Your task to perform on an android device: open app "Mercado Libre" (install if not already installed) Image 0: 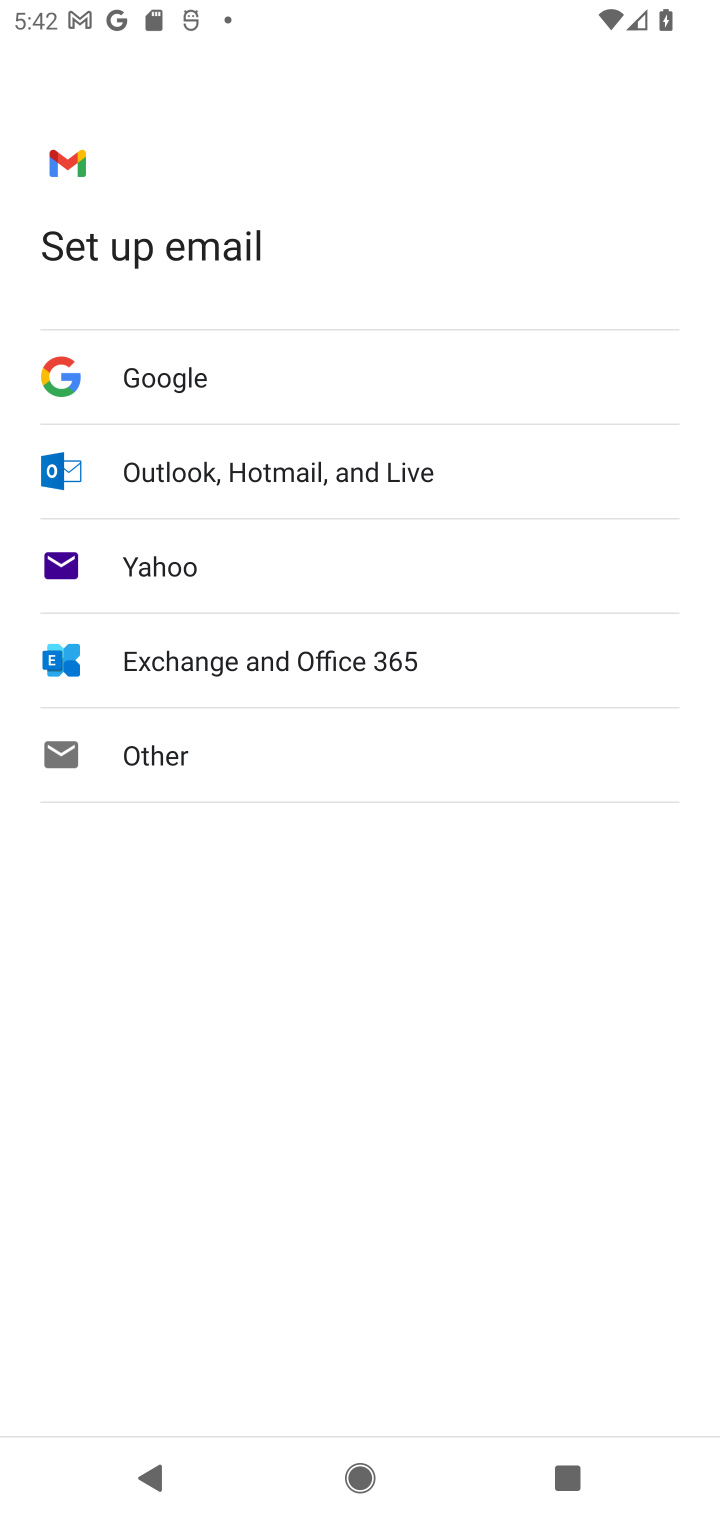
Step 0: press home button
Your task to perform on an android device: open app "Mercado Libre" (install if not already installed) Image 1: 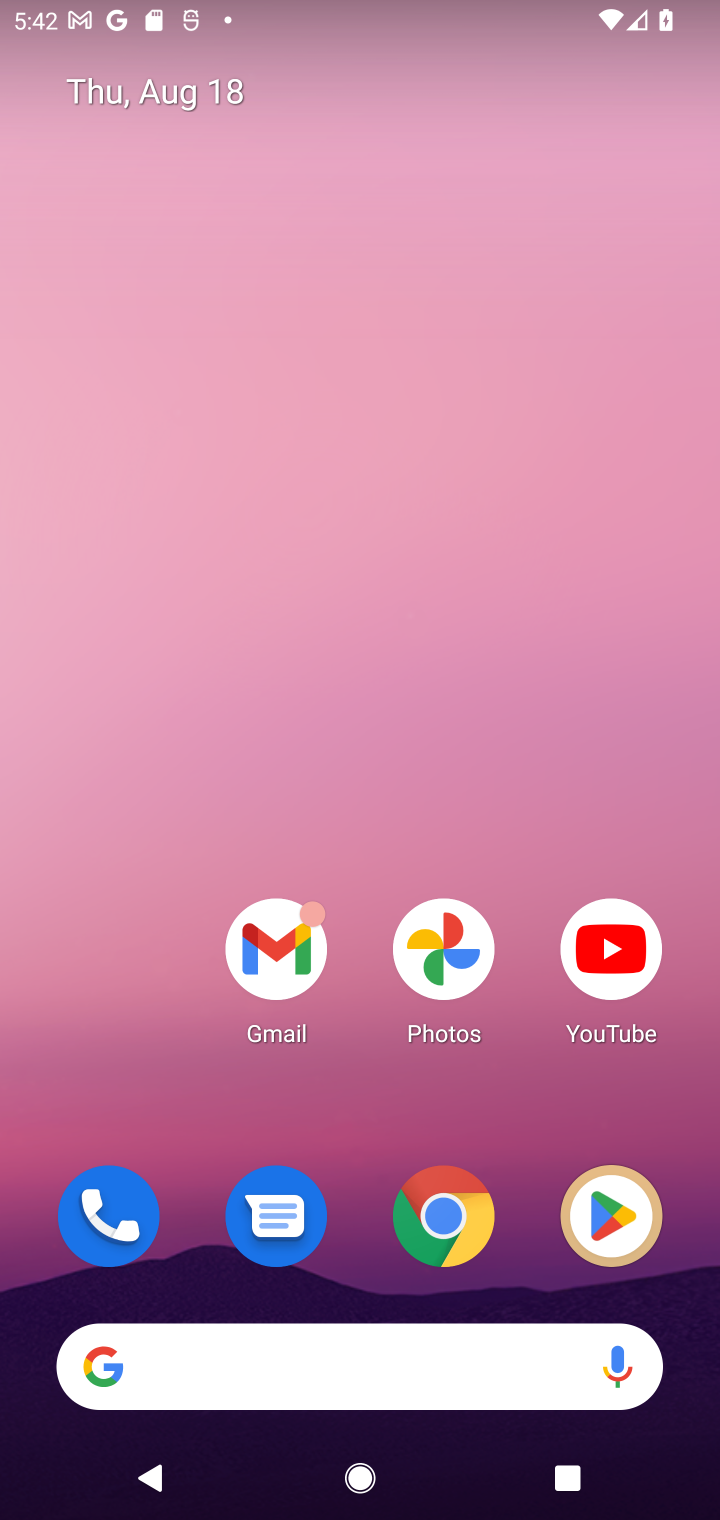
Step 1: click (610, 1216)
Your task to perform on an android device: open app "Mercado Libre" (install if not already installed) Image 2: 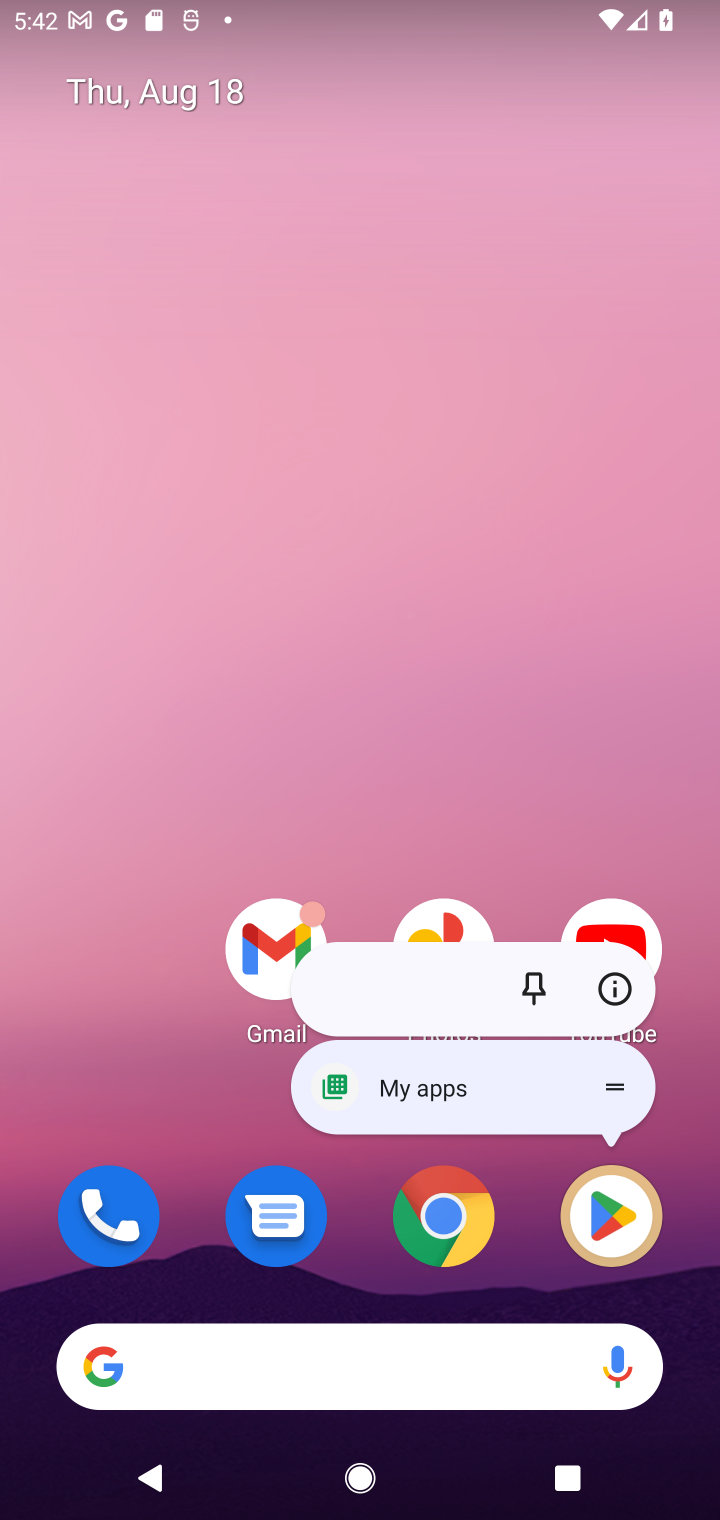
Step 2: click (610, 1216)
Your task to perform on an android device: open app "Mercado Libre" (install if not already installed) Image 3: 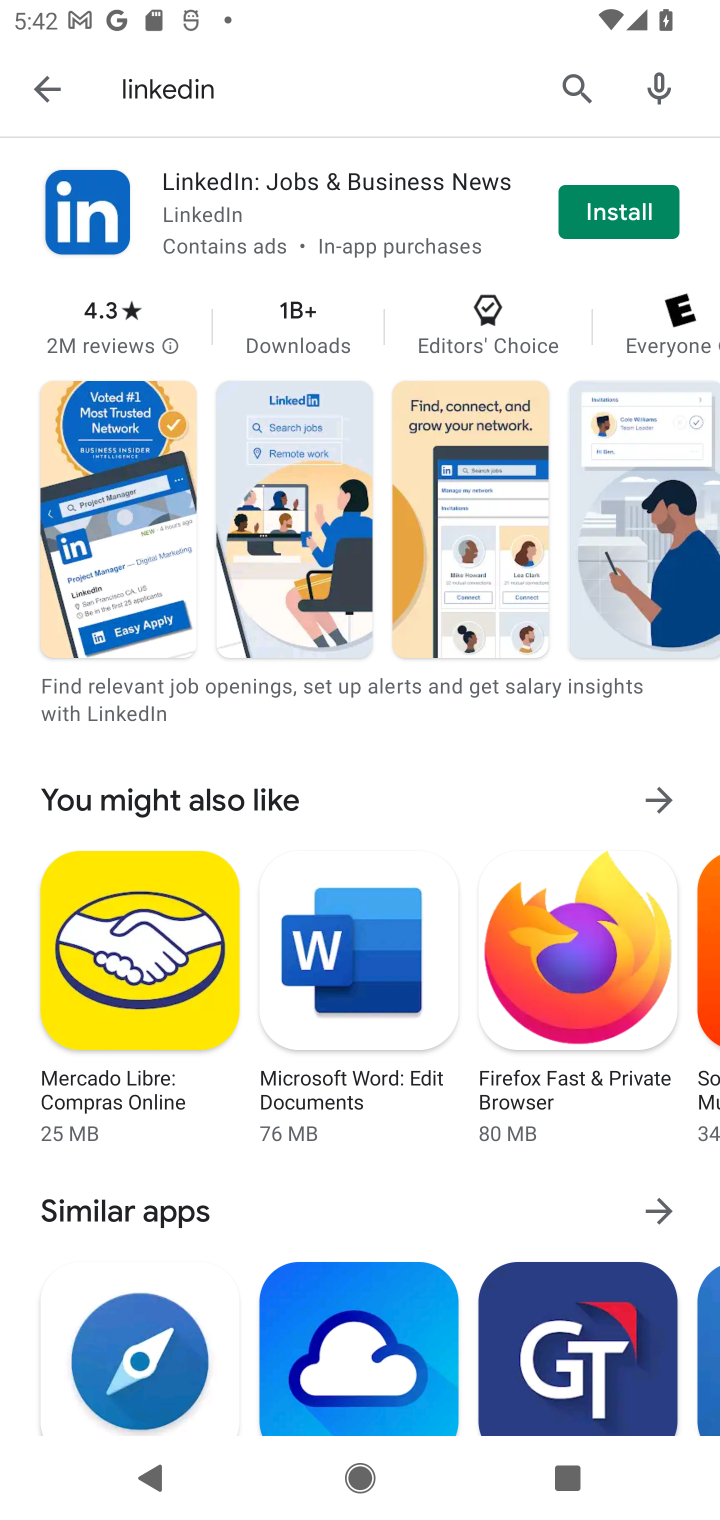
Step 3: click (582, 83)
Your task to perform on an android device: open app "Mercado Libre" (install if not already installed) Image 4: 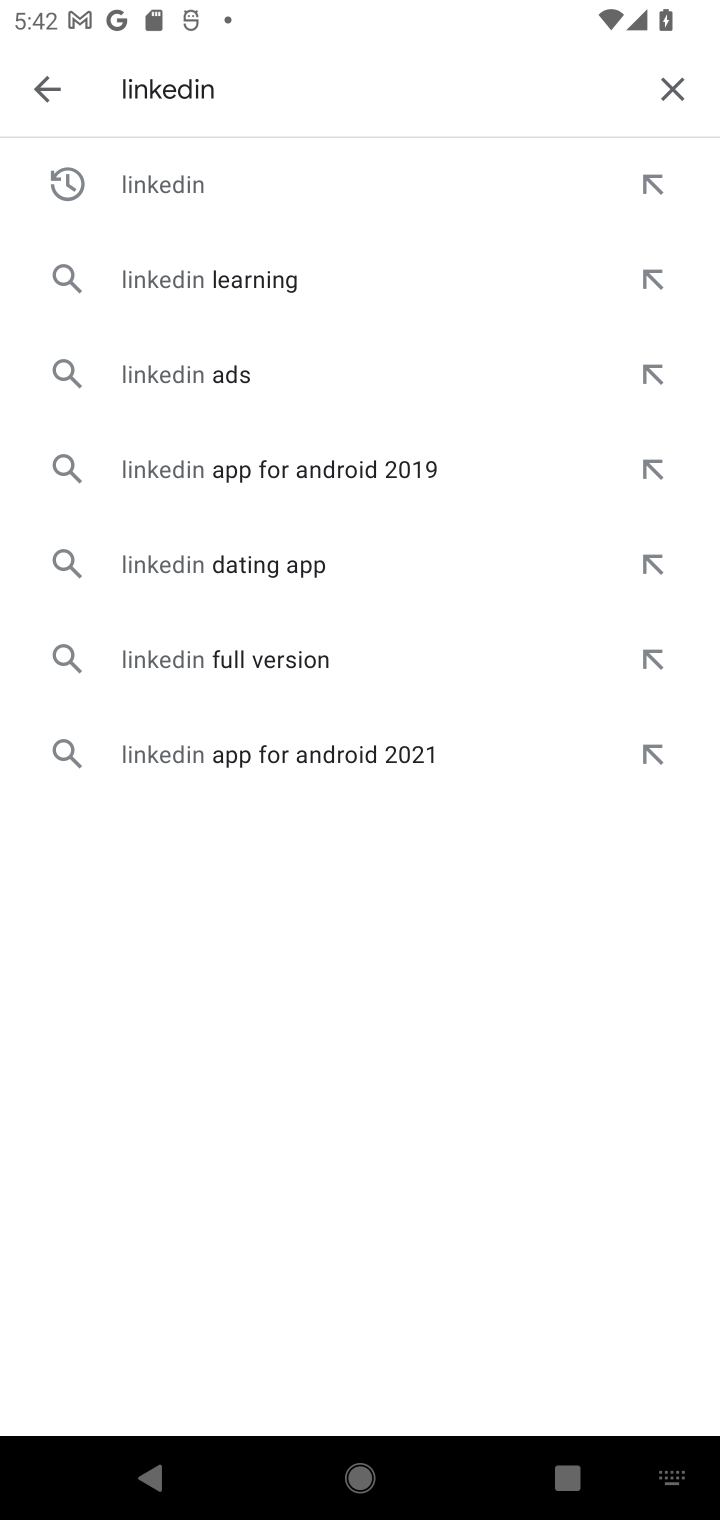
Step 4: click (674, 87)
Your task to perform on an android device: open app "Mercado Libre" (install if not already installed) Image 5: 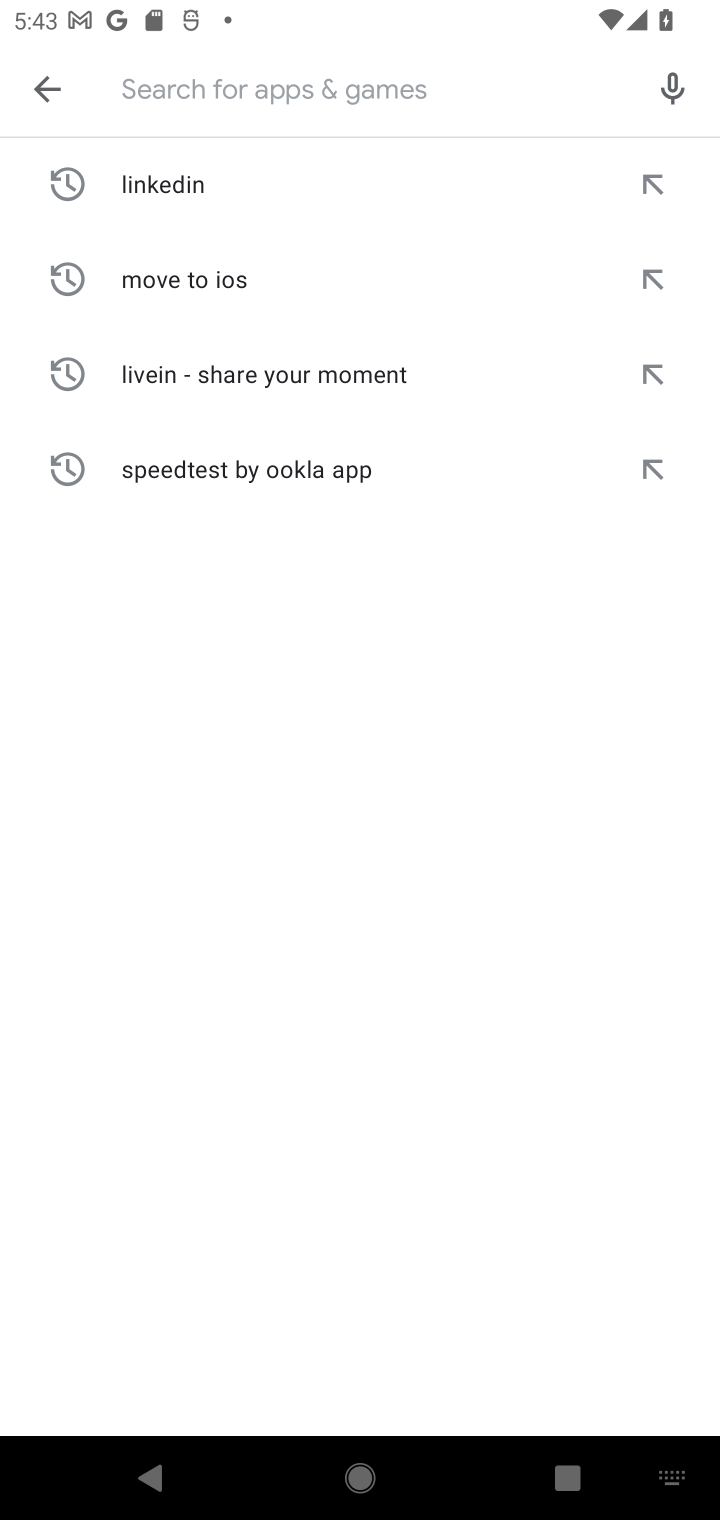
Step 5: type "Mercado Libre"
Your task to perform on an android device: open app "Mercado Libre" (install if not already installed) Image 6: 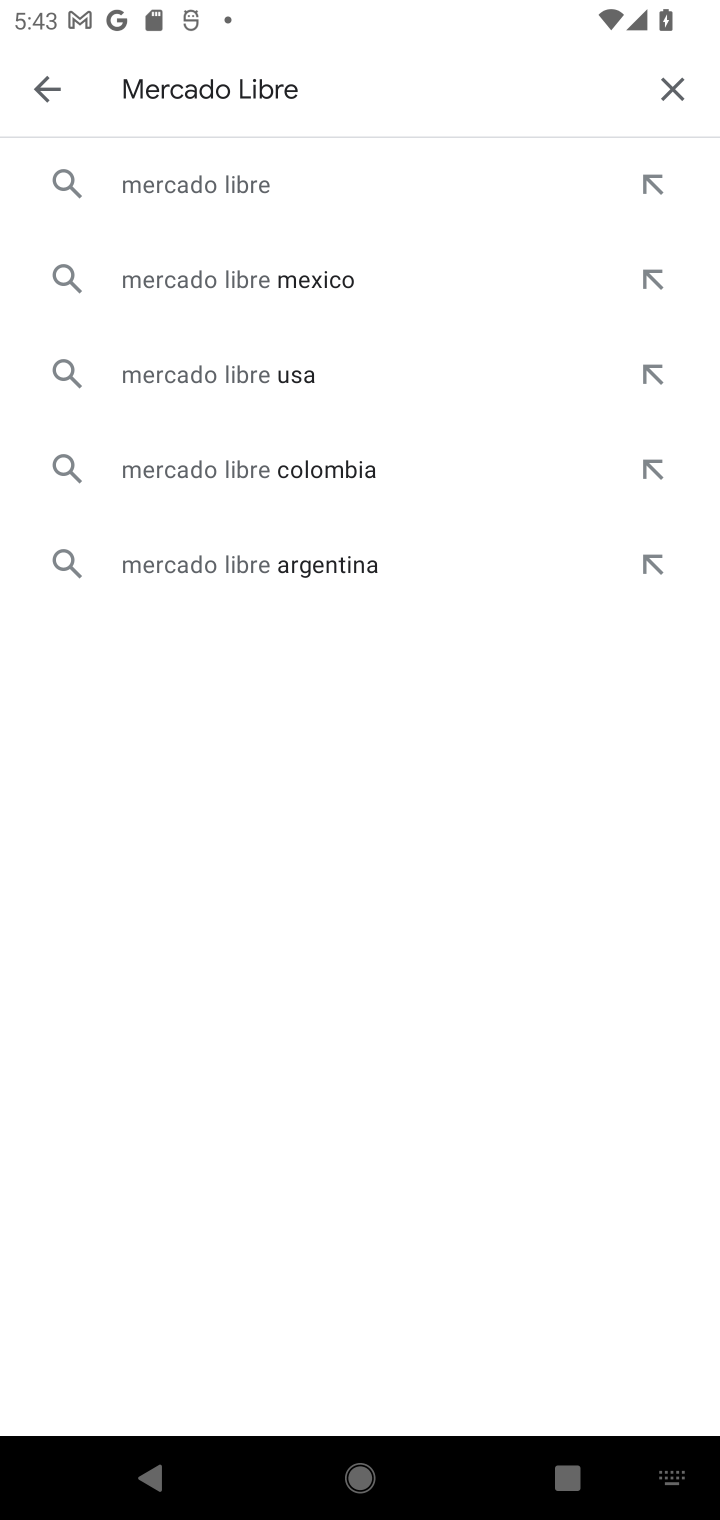
Step 6: click (213, 192)
Your task to perform on an android device: open app "Mercado Libre" (install if not already installed) Image 7: 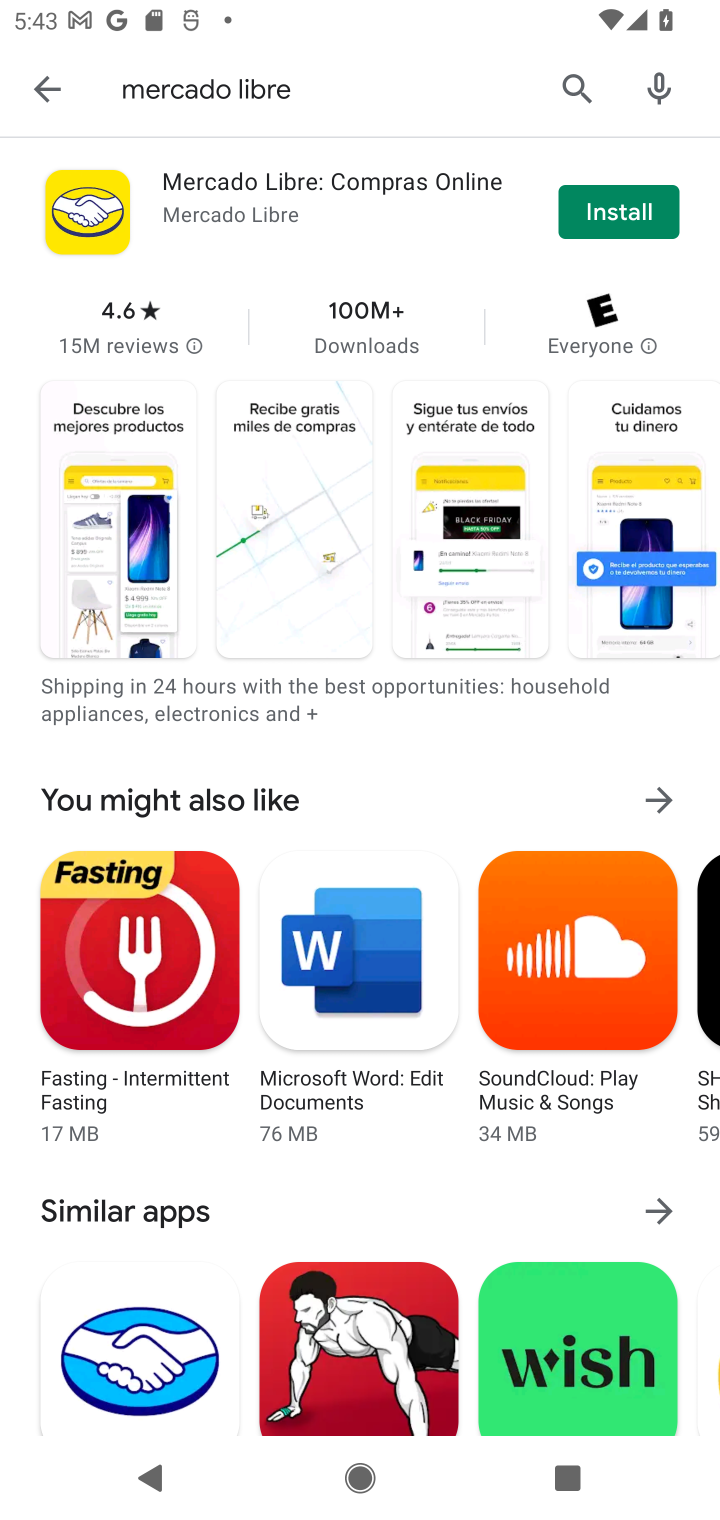
Step 7: click (606, 212)
Your task to perform on an android device: open app "Mercado Libre" (install if not already installed) Image 8: 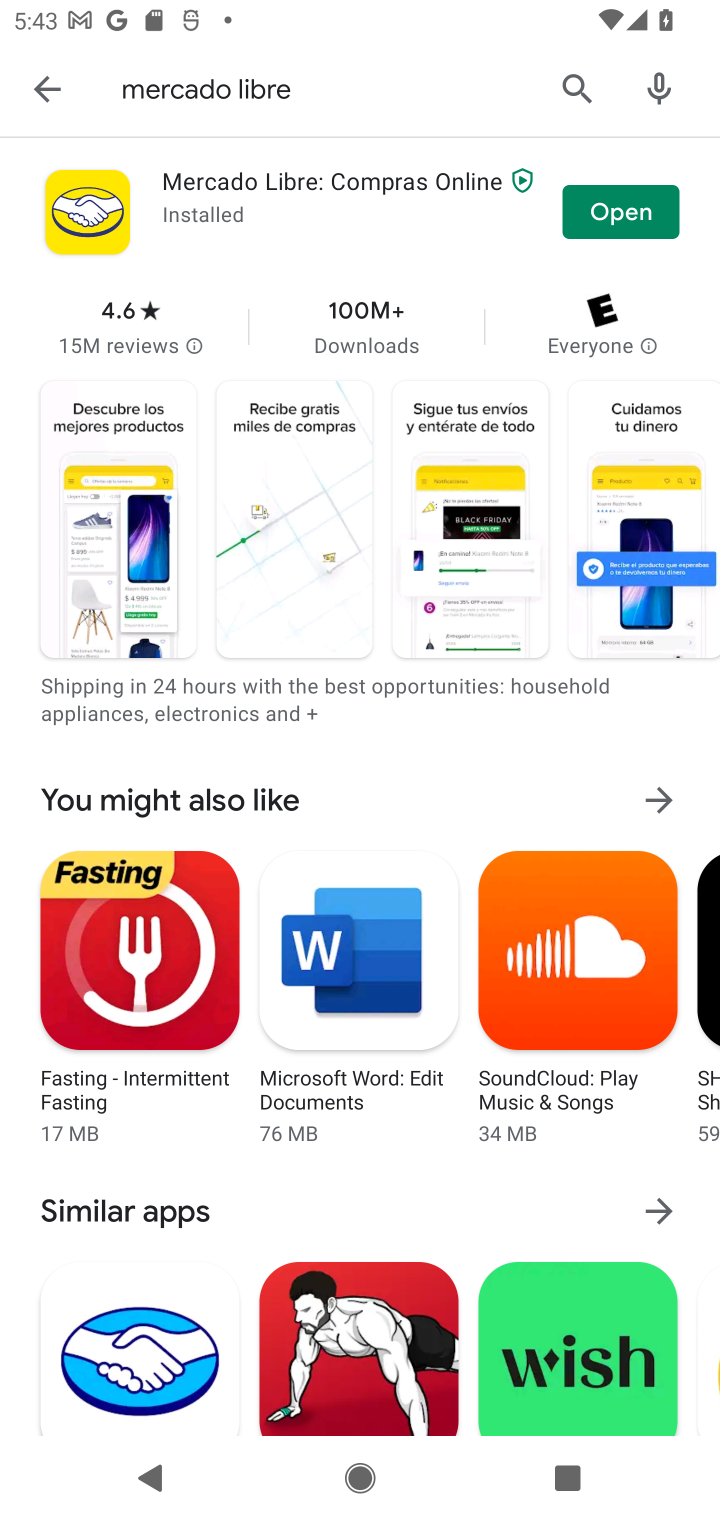
Step 8: click (624, 217)
Your task to perform on an android device: open app "Mercado Libre" (install if not already installed) Image 9: 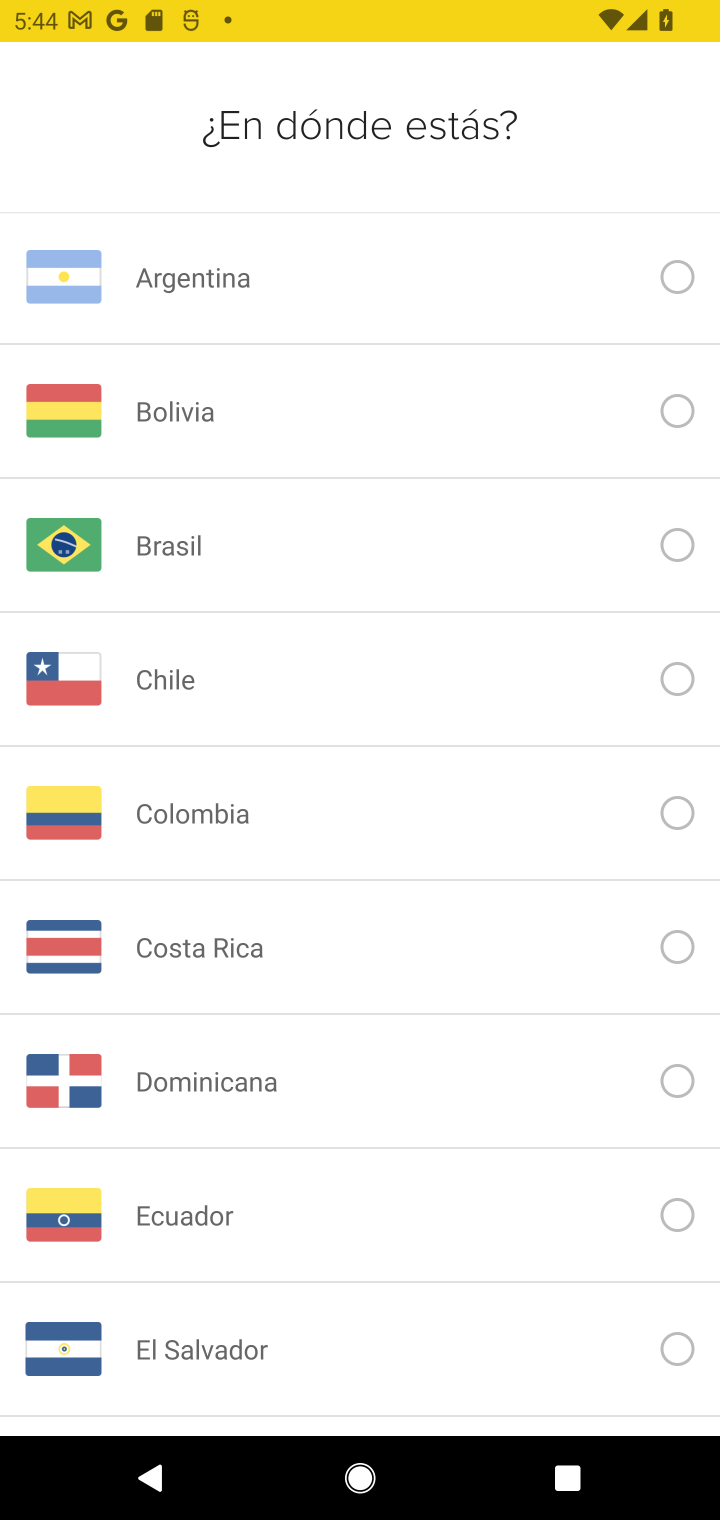
Step 9: task complete